Your task to perform on an android device: Turn on the flashlight Image 0: 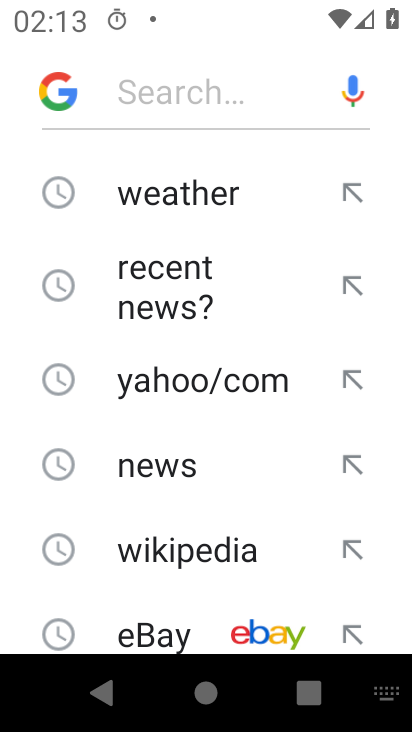
Step 0: press home button
Your task to perform on an android device: Turn on the flashlight Image 1: 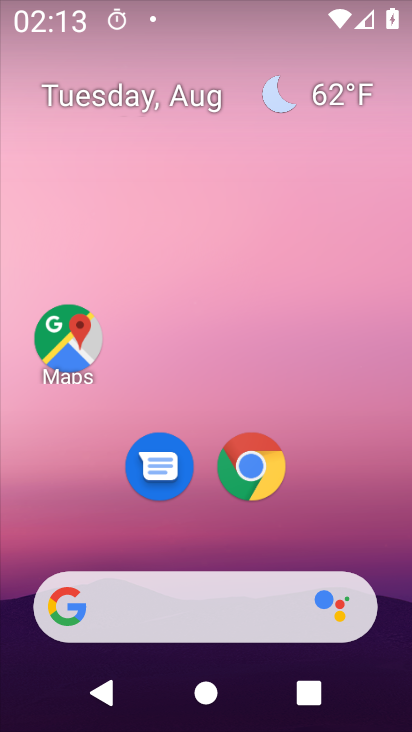
Step 1: drag from (234, 0) to (244, 305)
Your task to perform on an android device: Turn on the flashlight Image 2: 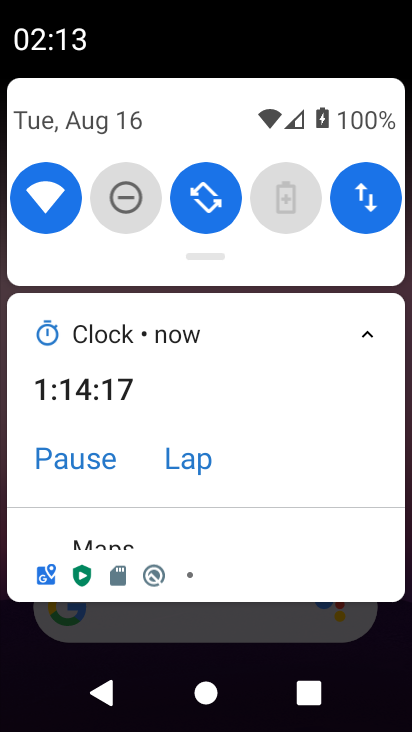
Step 2: drag from (239, 118) to (255, 310)
Your task to perform on an android device: Turn on the flashlight Image 3: 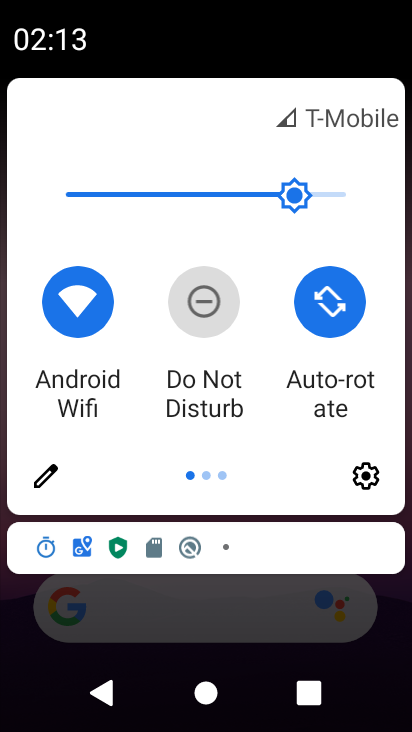
Step 3: click (37, 478)
Your task to perform on an android device: Turn on the flashlight Image 4: 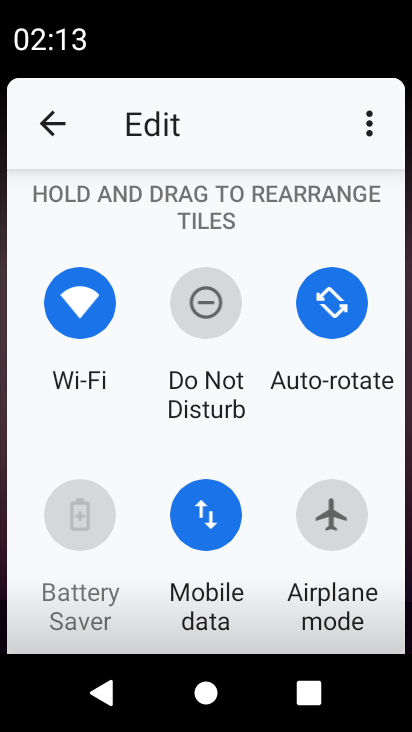
Step 4: task complete